Your task to perform on an android device: View the shopping cart on ebay. Search for "asus rog" on ebay, select the first entry, and add it to the cart. Image 0: 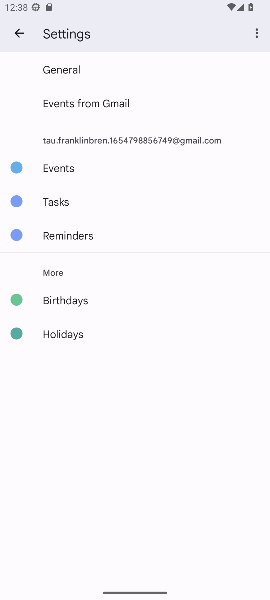
Step 0: press home button
Your task to perform on an android device: View the shopping cart on ebay. Search for "asus rog" on ebay, select the first entry, and add it to the cart. Image 1: 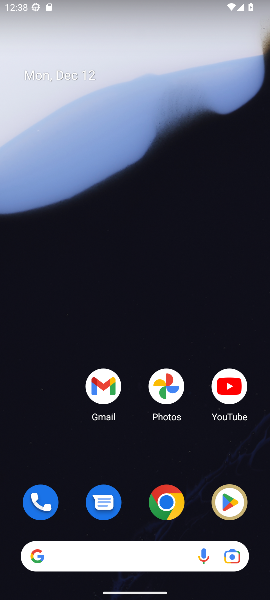
Step 1: click (170, 504)
Your task to perform on an android device: View the shopping cart on ebay. Search for "asus rog" on ebay, select the first entry, and add it to the cart. Image 2: 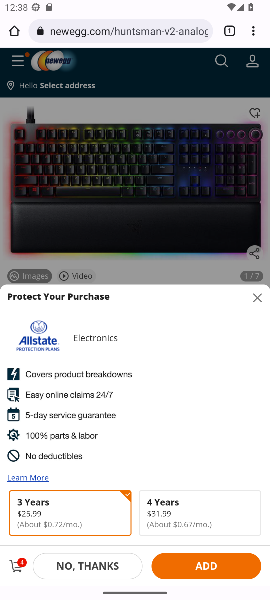
Step 2: click (89, 27)
Your task to perform on an android device: View the shopping cart on ebay. Search for "asus rog" on ebay, select the first entry, and add it to the cart. Image 3: 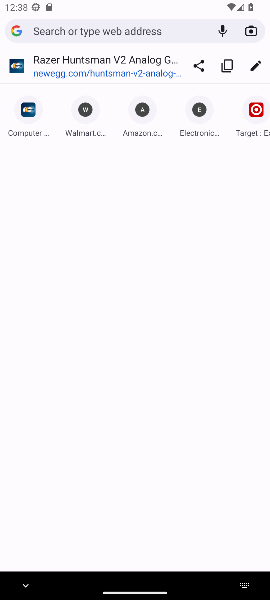
Step 3: type "ebay"
Your task to perform on an android device: View the shopping cart on ebay. Search for "asus rog" on ebay, select the first entry, and add it to the cart. Image 4: 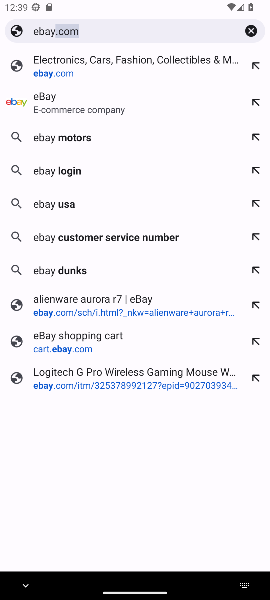
Step 4: click (36, 70)
Your task to perform on an android device: View the shopping cart on ebay. Search for "asus rog" on ebay, select the first entry, and add it to the cart. Image 5: 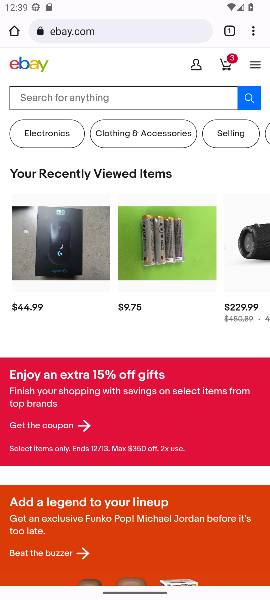
Step 5: click (73, 98)
Your task to perform on an android device: View the shopping cart on ebay. Search for "asus rog" on ebay, select the first entry, and add it to the cart. Image 6: 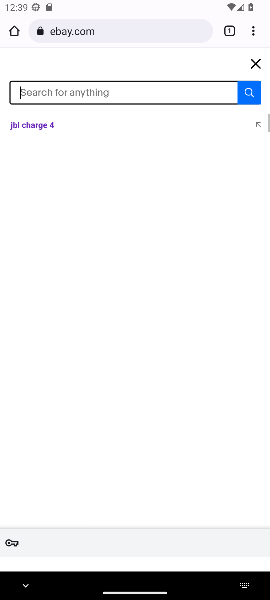
Step 6: type "asus rog"
Your task to perform on an android device: View the shopping cart on ebay. Search for "asus rog" on ebay, select the first entry, and add it to the cart. Image 7: 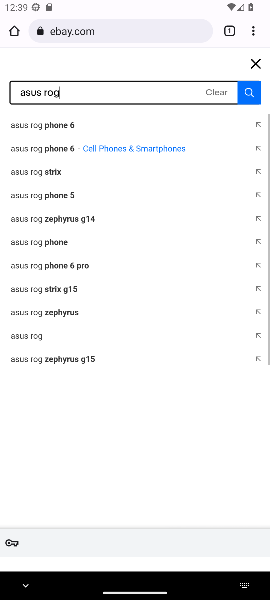
Step 7: click (246, 92)
Your task to perform on an android device: View the shopping cart on ebay. Search for "asus rog" on ebay, select the first entry, and add it to the cart. Image 8: 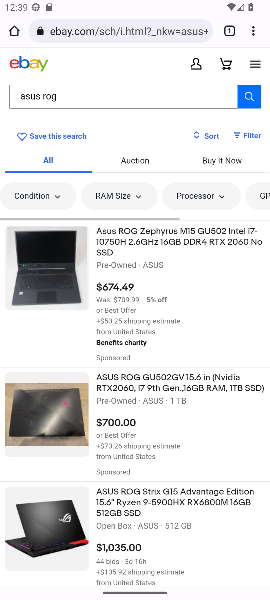
Step 8: click (138, 232)
Your task to perform on an android device: View the shopping cart on ebay. Search for "asus rog" on ebay, select the first entry, and add it to the cart. Image 9: 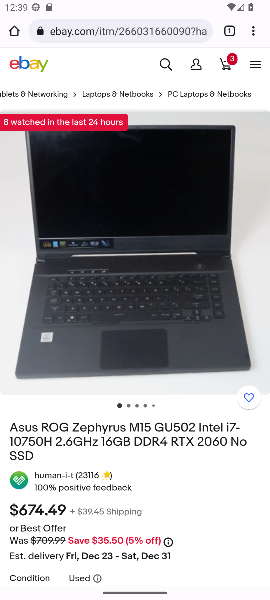
Step 9: drag from (209, 508) to (205, 304)
Your task to perform on an android device: View the shopping cart on ebay. Search for "asus rog" on ebay, select the first entry, and add it to the cart. Image 10: 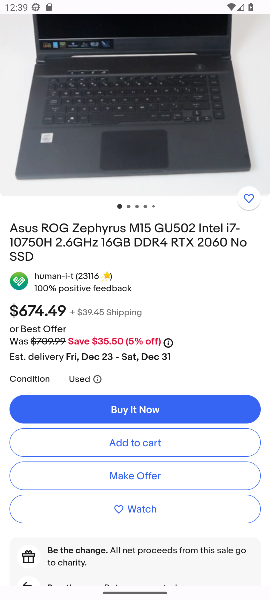
Step 10: click (198, 443)
Your task to perform on an android device: View the shopping cart on ebay. Search for "asus rog" on ebay, select the first entry, and add it to the cart. Image 11: 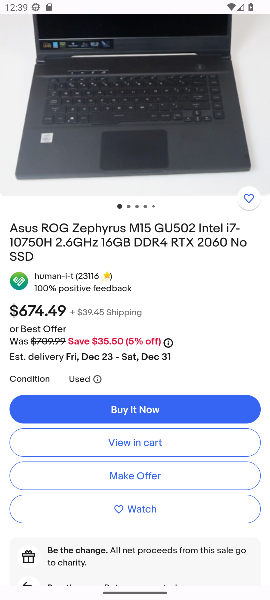
Step 11: task complete